Your task to perform on an android device: turn off improve location accuracy Image 0: 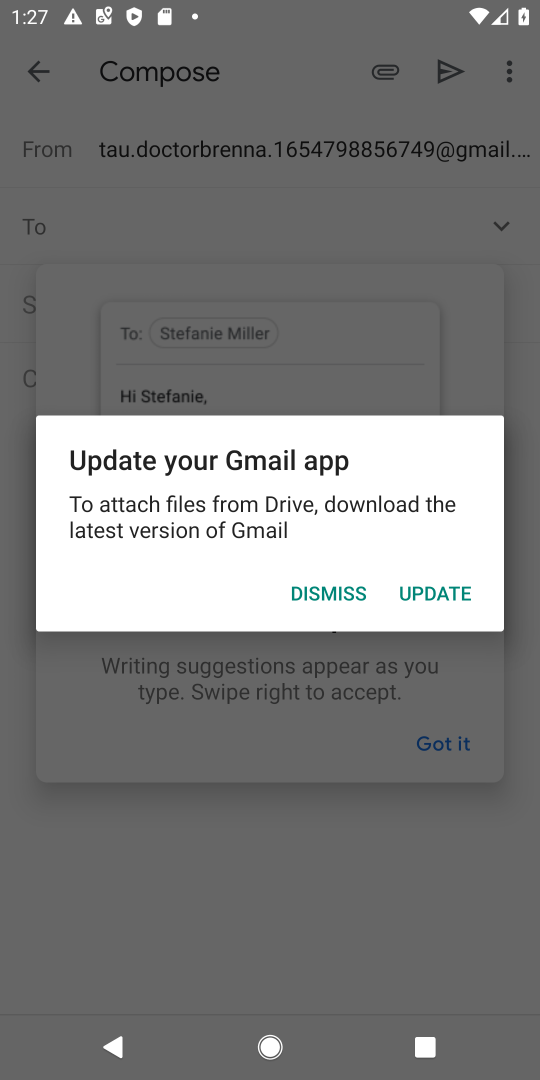
Step 0: press home button
Your task to perform on an android device: turn off improve location accuracy Image 1: 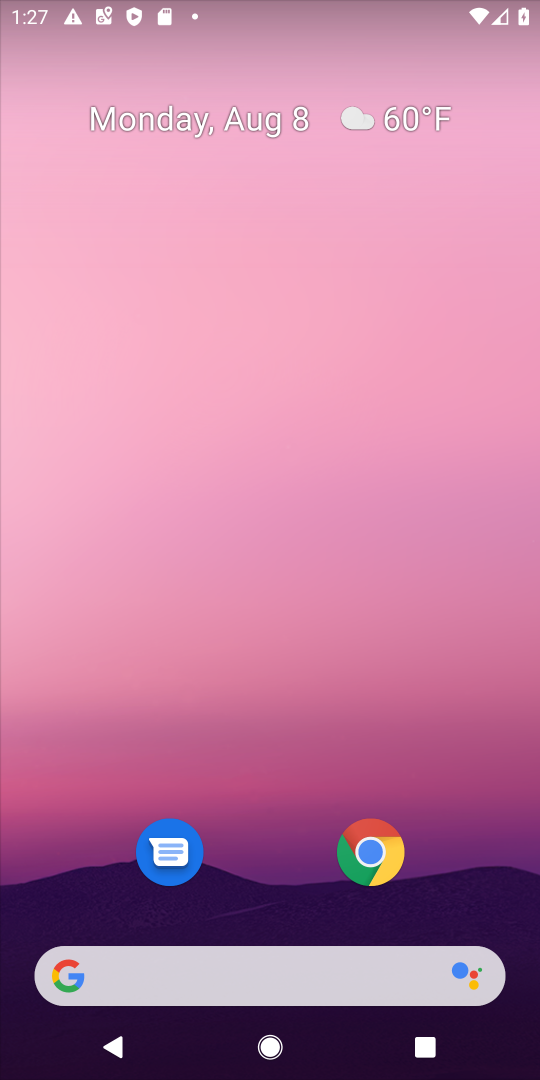
Step 1: drag from (494, 912) to (499, 54)
Your task to perform on an android device: turn off improve location accuracy Image 2: 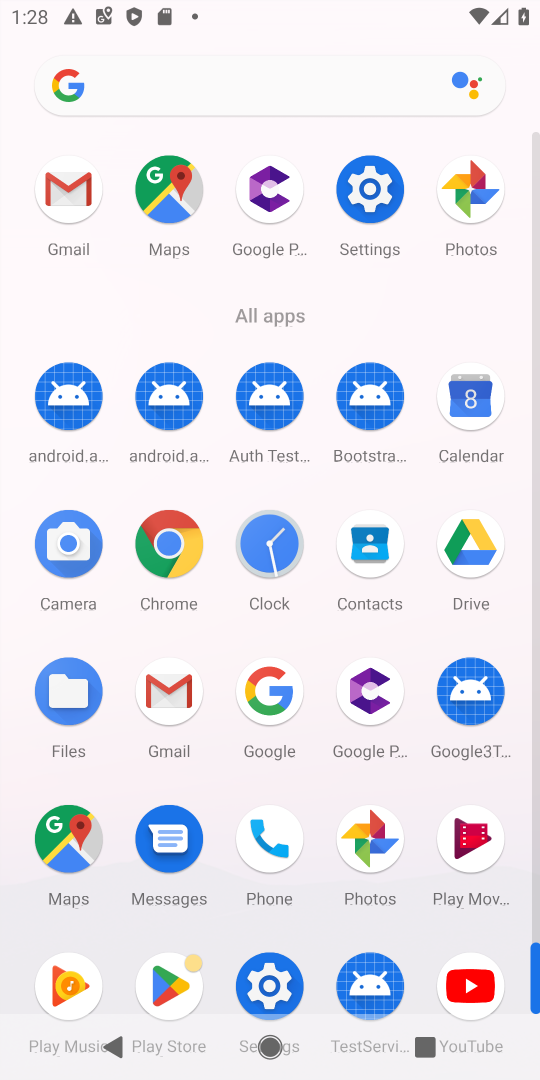
Step 2: click (369, 206)
Your task to perform on an android device: turn off improve location accuracy Image 3: 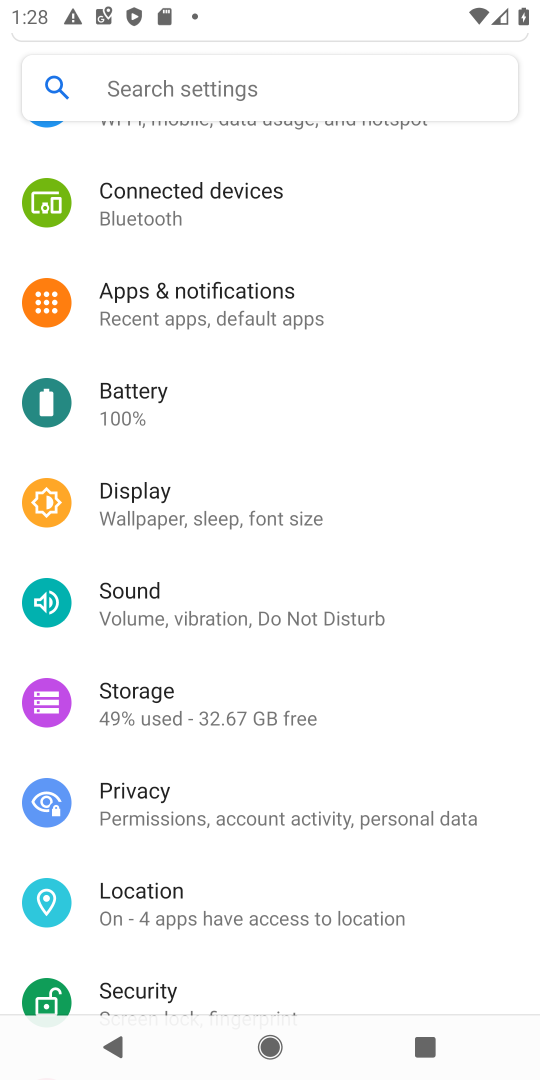
Step 3: click (252, 896)
Your task to perform on an android device: turn off improve location accuracy Image 4: 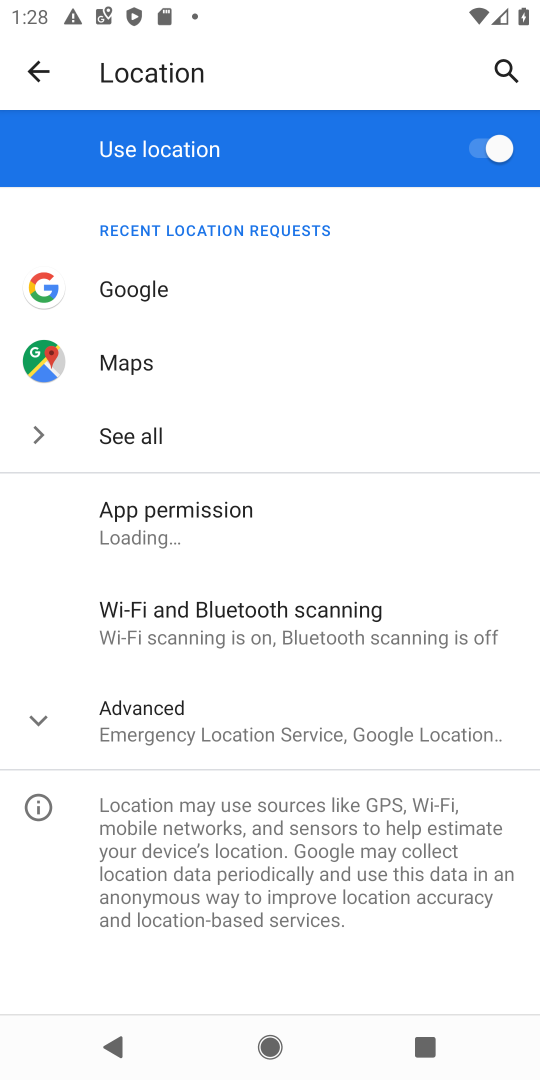
Step 4: click (316, 739)
Your task to perform on an android device: turn off improve location accuracy Image 5: 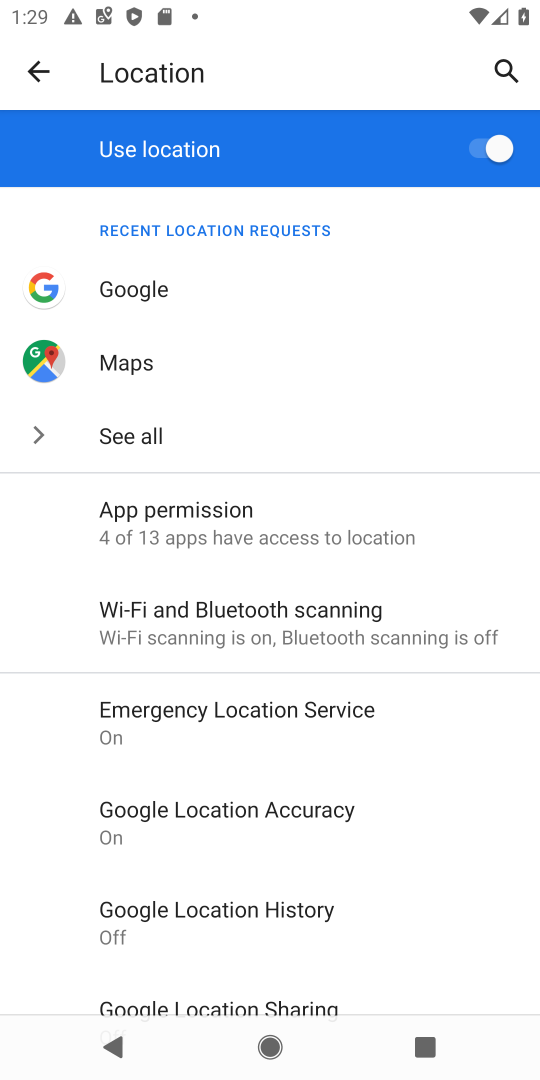
Step 5: click (328, 819)
Your task to perform on an android device: turn off improve location accuracy Image 6: 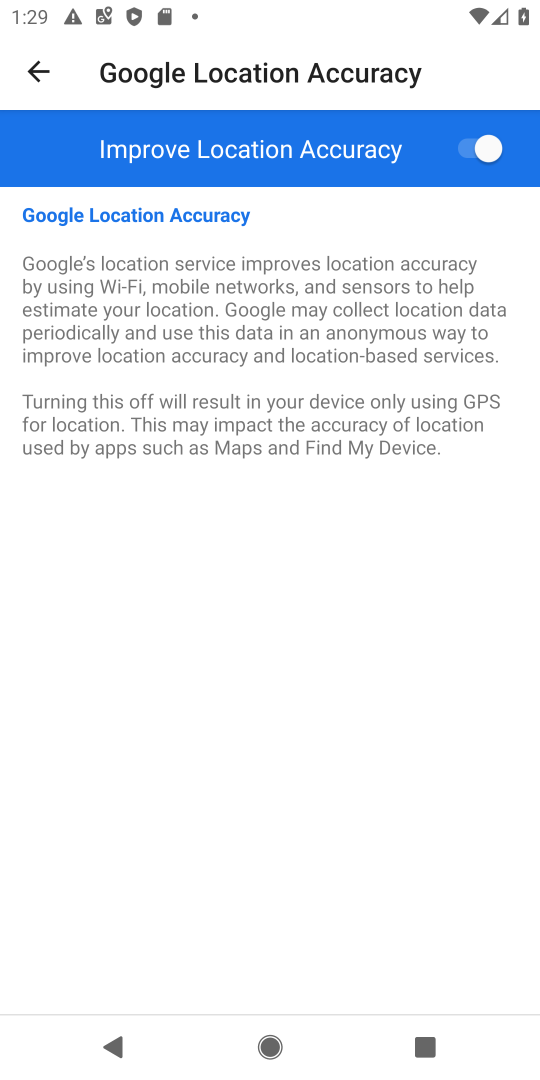
Step 6: click (477, 178)
Your task to perform on an android device: turn off improve location accuracy Image 7: 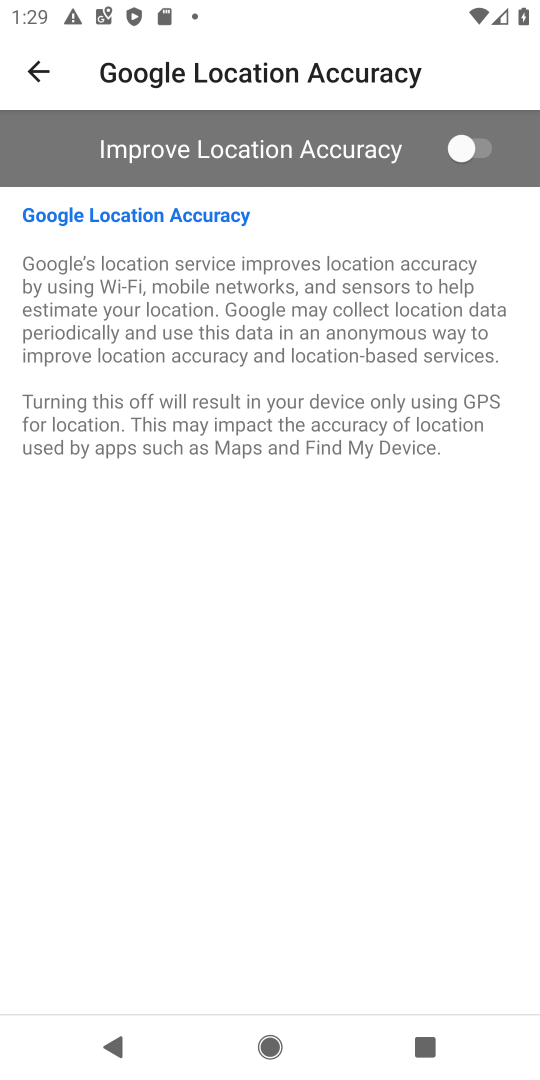
Step 7: task complete